Your task to perform on an android device: open app "Chime – Mobile Banking" (install if not already installed) Image 0: 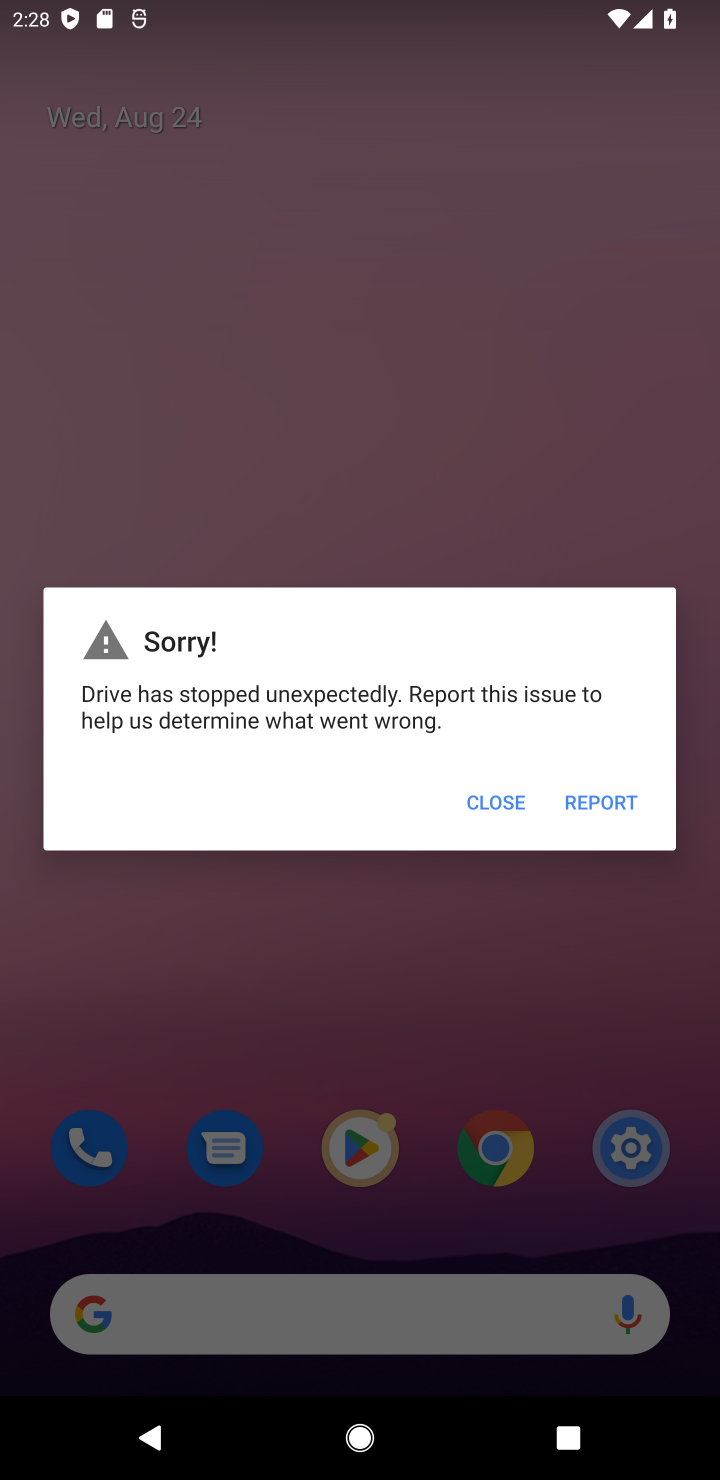
Step 0: press home button
Your task to perform on an android device: open app "Chime – Mobile Banking" (install if not already installed) Image 1: 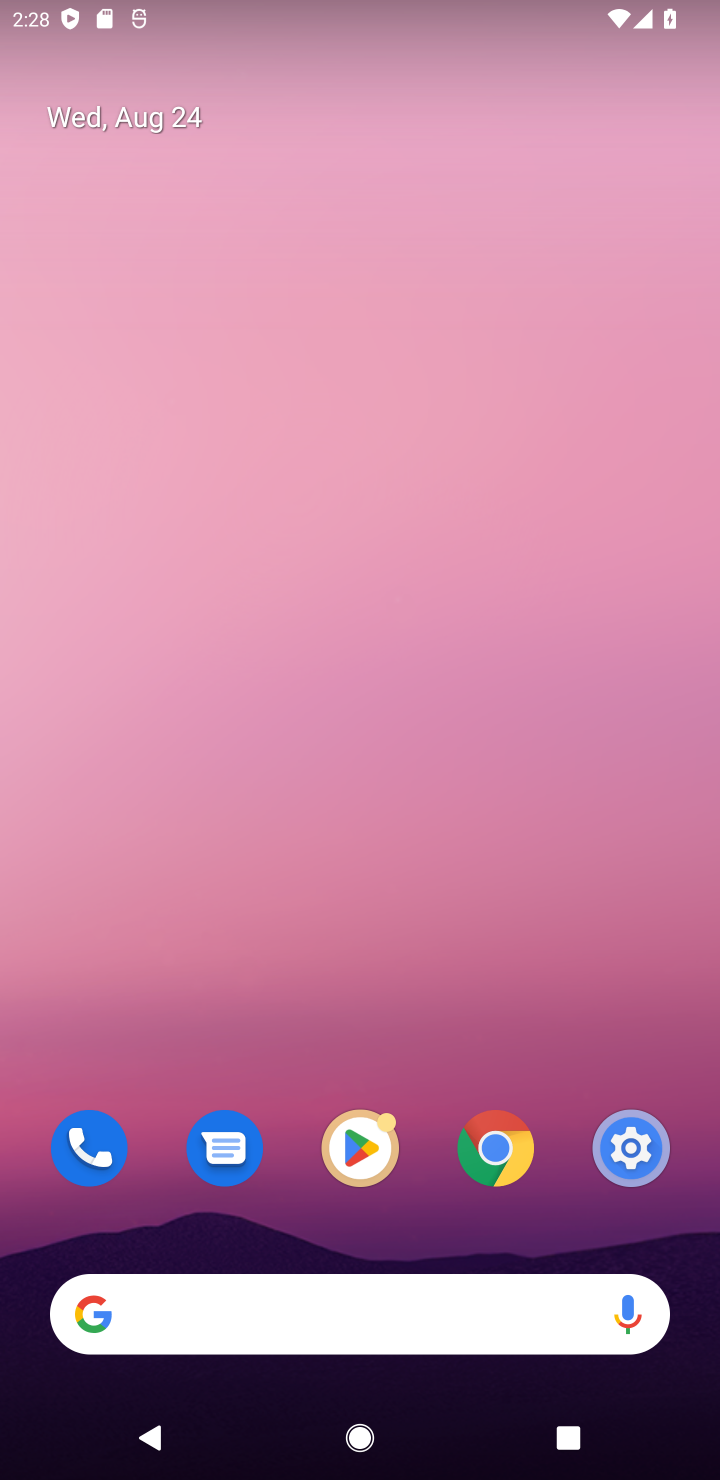
Step 1: drag from (319, 1314) to (402, 104)
Your task to perform on an android device: open app "Chime – Mobile Banking" (install if not already installed) Image 2: 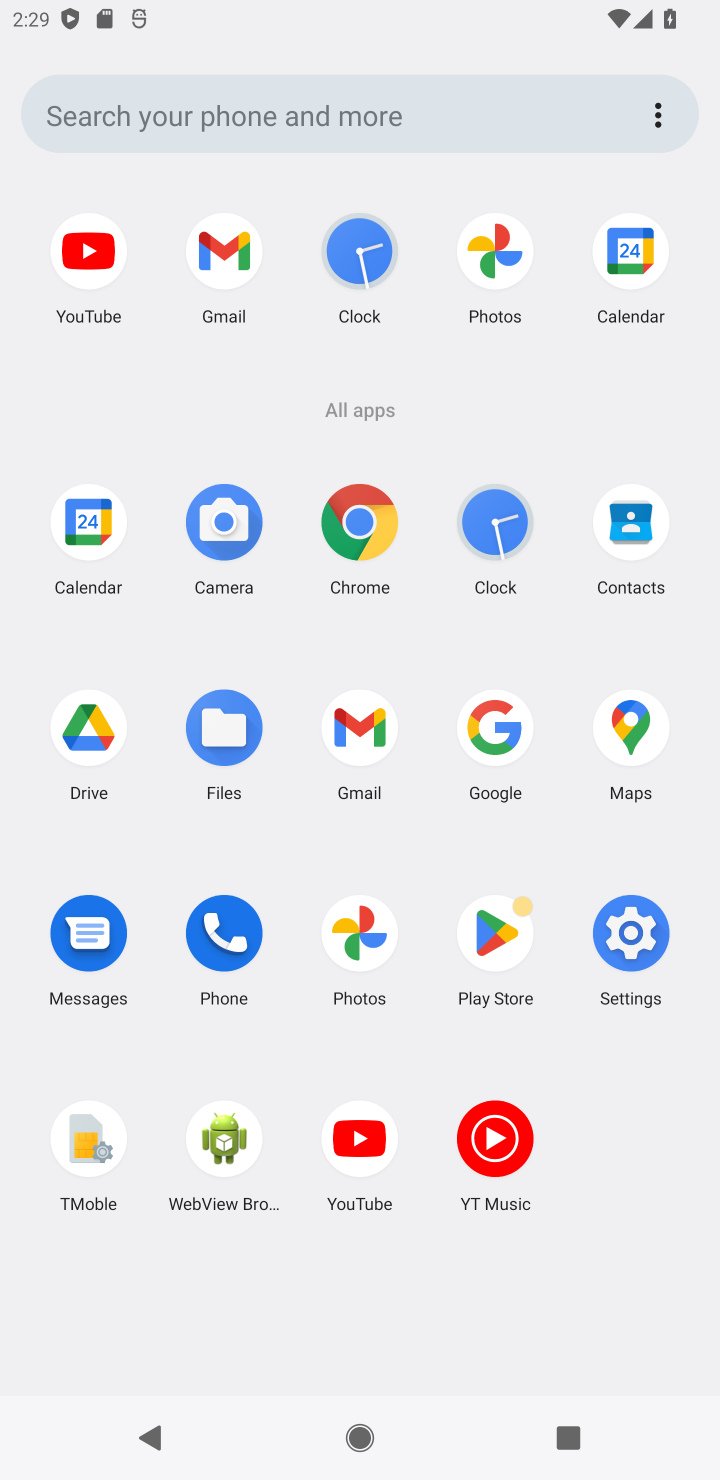
Step 2: click (498, 927)
Your task to perform on an android device: open app "Chime – Mobile Banking" (install if not already installed) Image 3: 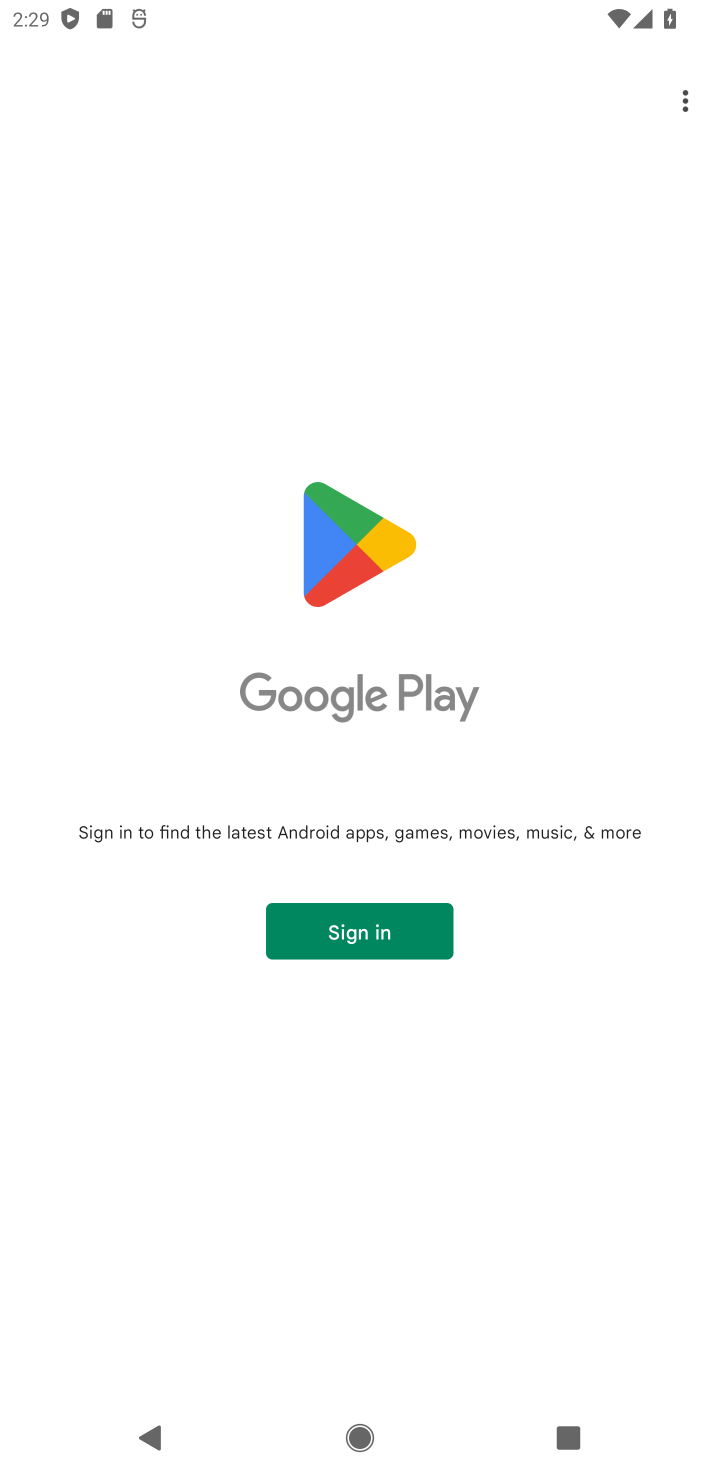
Step 3: click (399, 937)
Your task to perform on an android device: open app "Chime – Mobile Banking" (install if not already installed) Image 4: 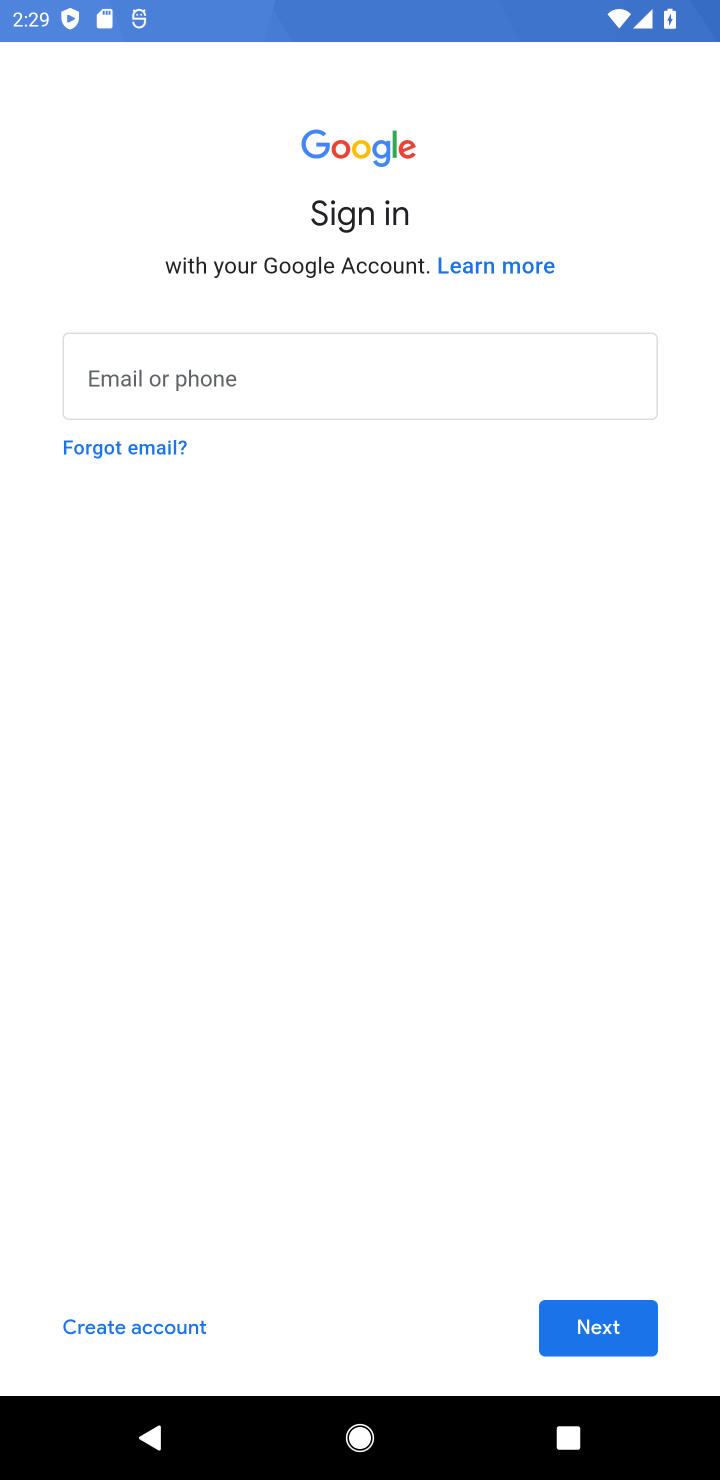
Step 4: task complete